Your task to perform on an android device: Is it going to rain tomorrow? Image 0: 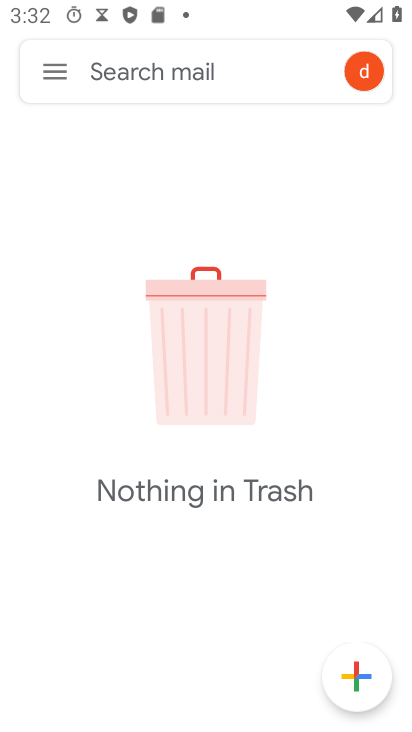
Step 0: press back button
Your task to perform on an android device: Is it going to rain tomorrow? Image 1: 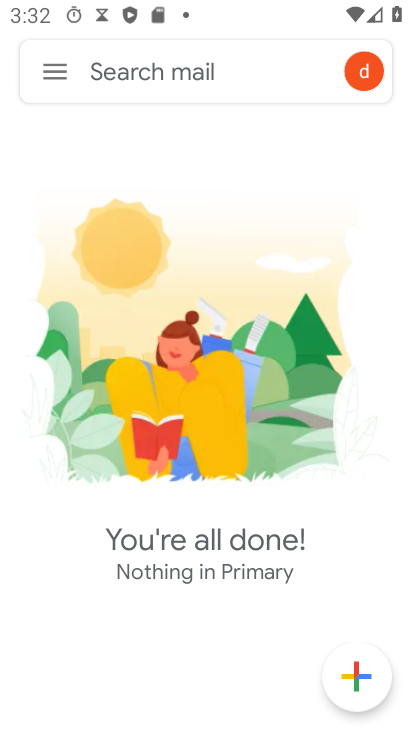
Step 1: press home button
Your task to perform on an android device: Is it going to rain tomorrow? Image 2: 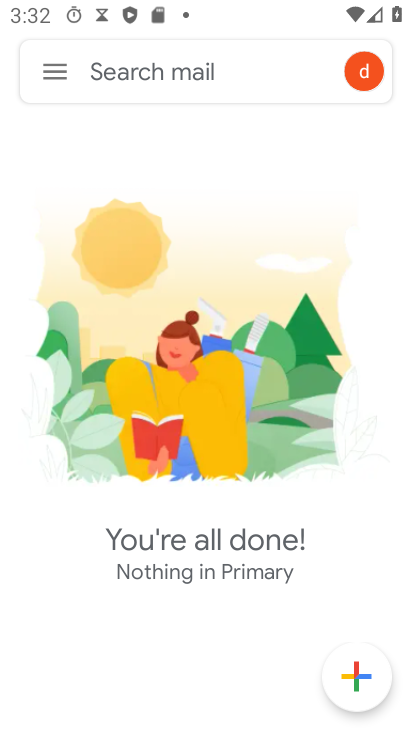
Step 2: press home button
Your task to perform on an android device: Is it going to rain tomorrow? Image 3: 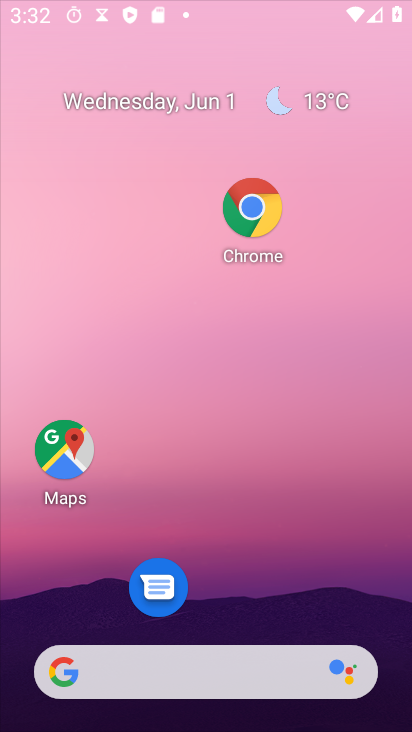
Step 3: press home button
Your task to perform on an android device: Is it going to rain tomorrow? Image 4: 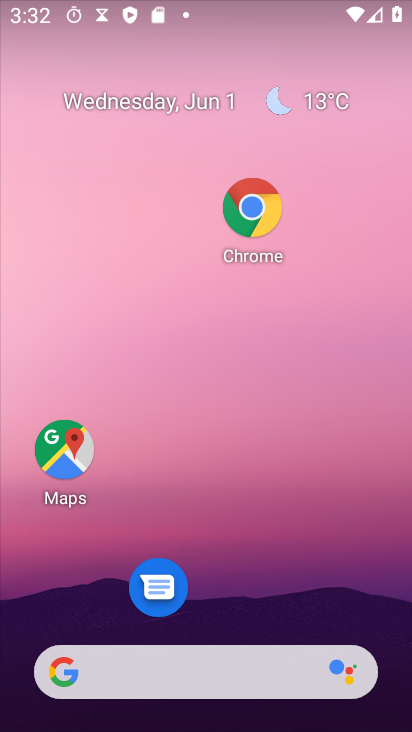
Step 4: drag from (155, 315) to (393, 420)
Your task to perform on an android device: Is it going to rain tomorrow? Image 5: 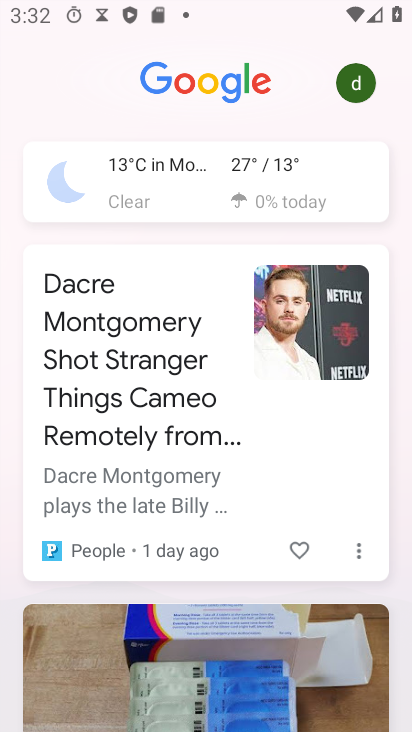
Step 5: click (168, 180)
Your task to perform on an android device: Is it going to rain tomorrow? Image 6: 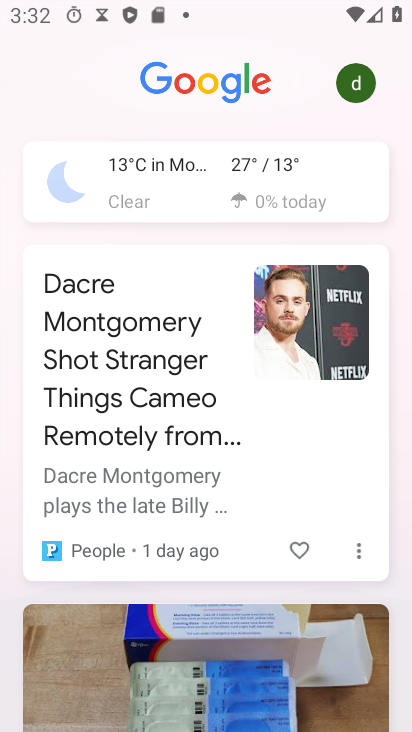
Step 6: click (168, 180)
Your task to perform on an android device: Is it going to rain tomorrow? Image 7: 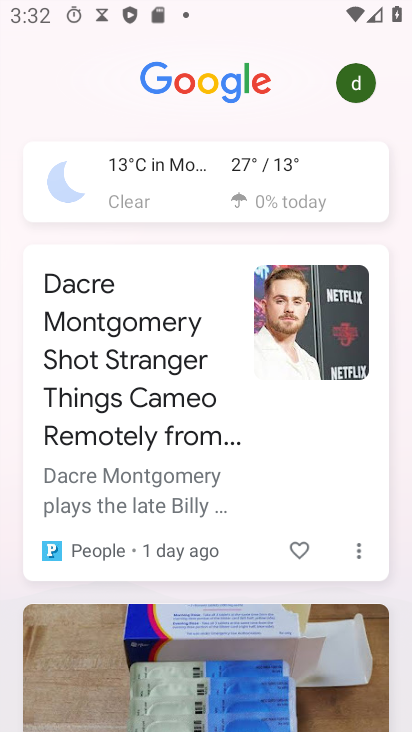
Step 7: click (168, 180)
Your task to perform on an android device: Is it going to rain tomorrow? Image 8: 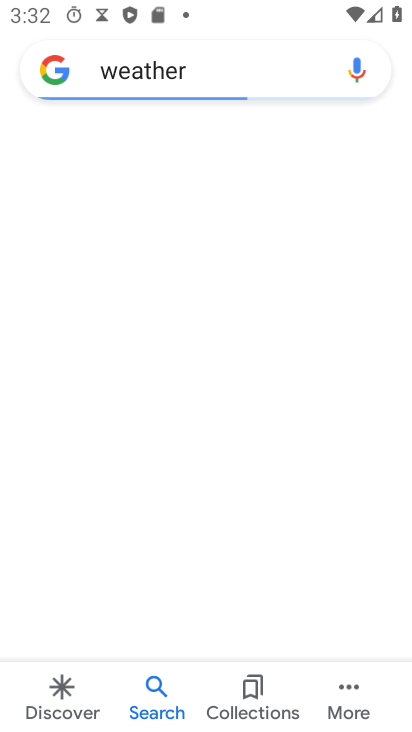
Step 8: click (182, 172)
Your task to perform on an android device: Is it going to rain tomorrow? Image 9: 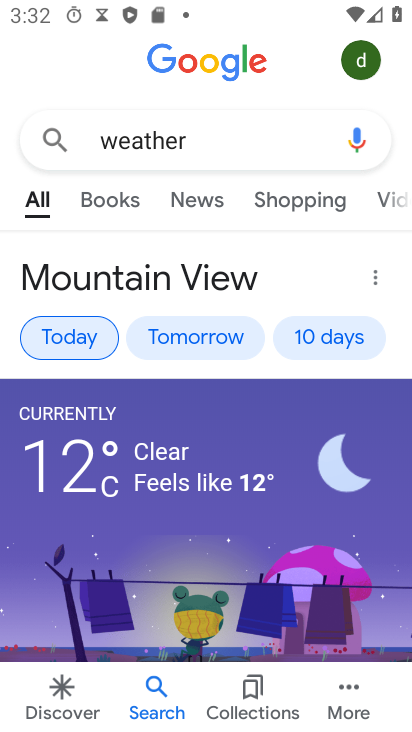
Step 9: click (326, 336)
Your task to perform on an android device: Is it going to rain tomorrow? Image 10: 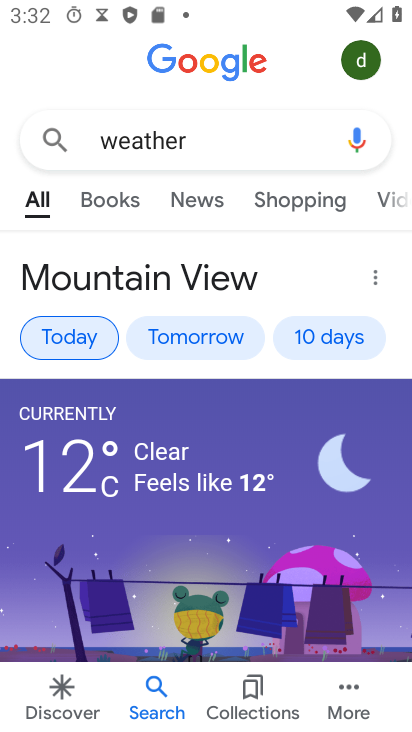
Step 10: click (325, 336)
Your task to perform on an android device: Is it going to rain tomorrow? Image 11: 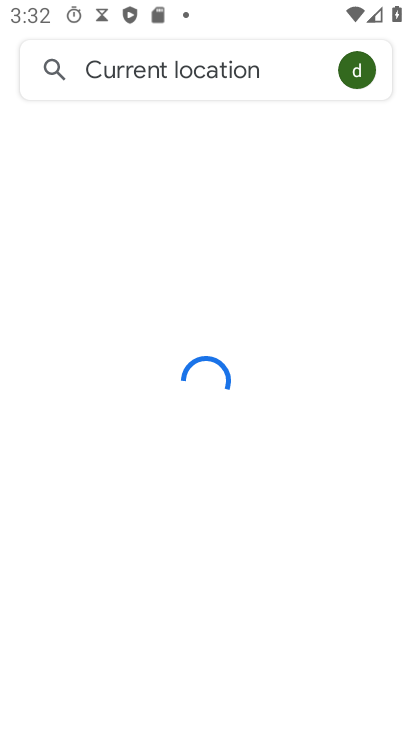
Step 11: click (325, 336)
Your task to perform on an android device: Is it going to rain tomorrow? Image 12: 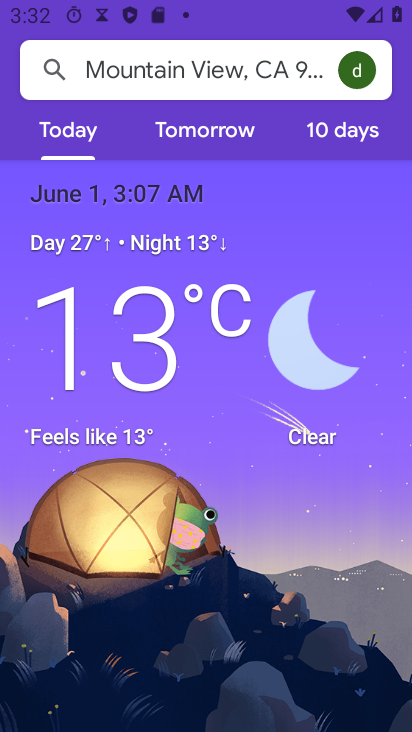
Step 12: task complete